Your task to perform on an android device: Show me productivity apps on the Play Store Image 0: 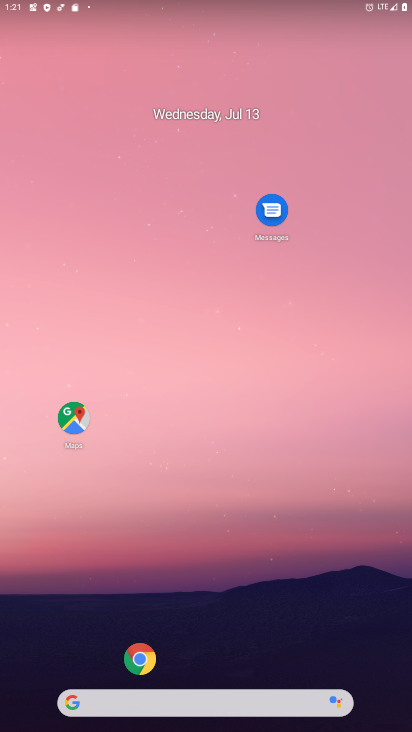
Step 0: drag from (65, 592) to (235, 0)
Your task to perform on an android device: Show me productivity apps on the Play Store Image 1: 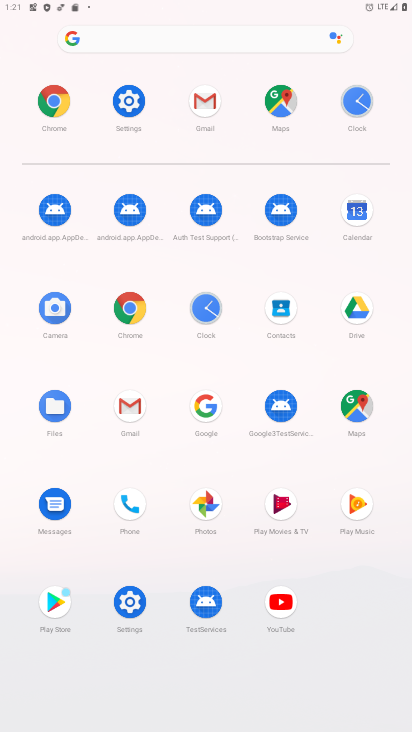
Step 1: click (59, 604)
Your task to perform on an android device: Show me productivity apps on the Play Store Image 2: 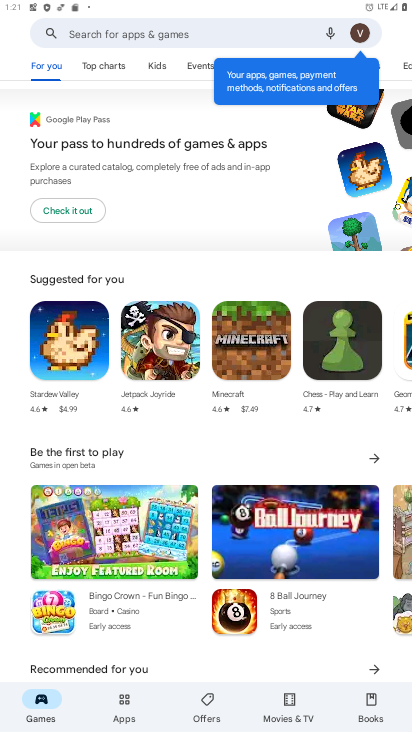
Step 2: click (77, 25)
Your task to perform on an android device: Show me productivity apps on the Play Store Image 3: 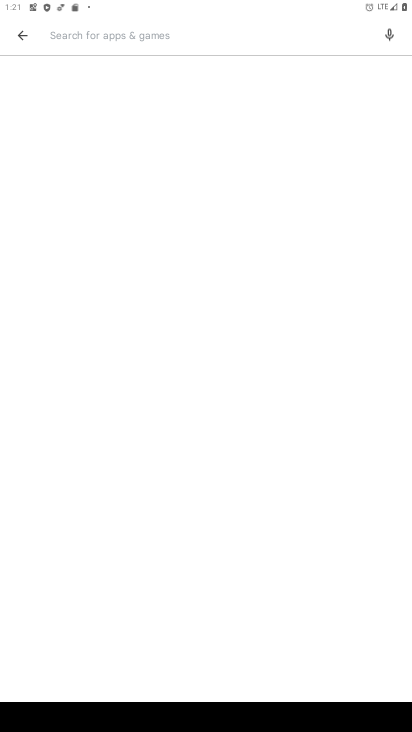
Step 3: type " productivity apps "
Your task to perform on an android device: Show me productivity apps on the Play Store Image 4: 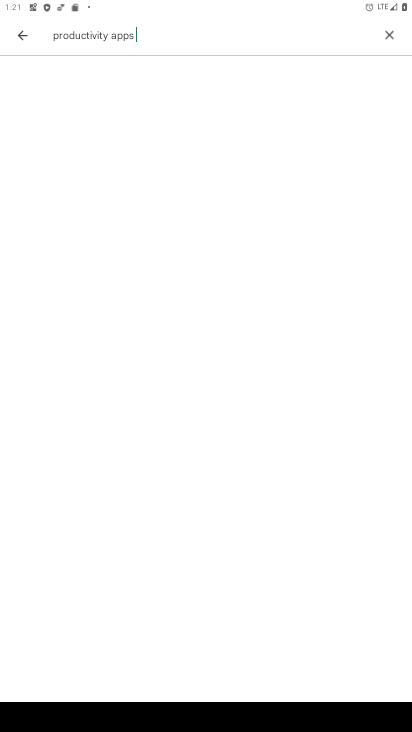
Step 4: type ""
Your task to perform on an android device: Show me productivity apps on the Play Store Image 5: 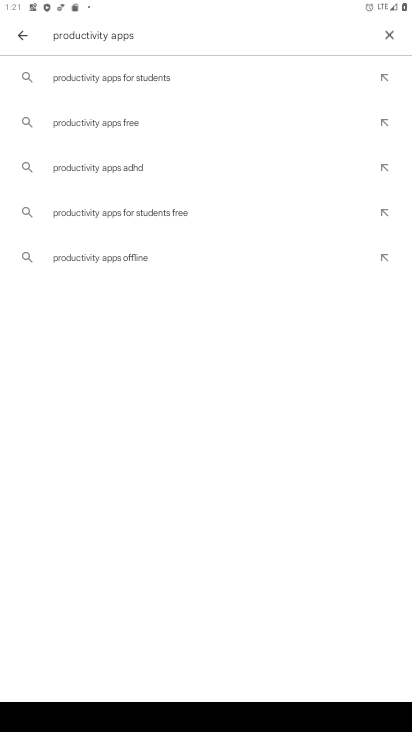
Step 5: type ""
Your task to perform on an android device: Show me productivity apps on the Play Store Image 6: 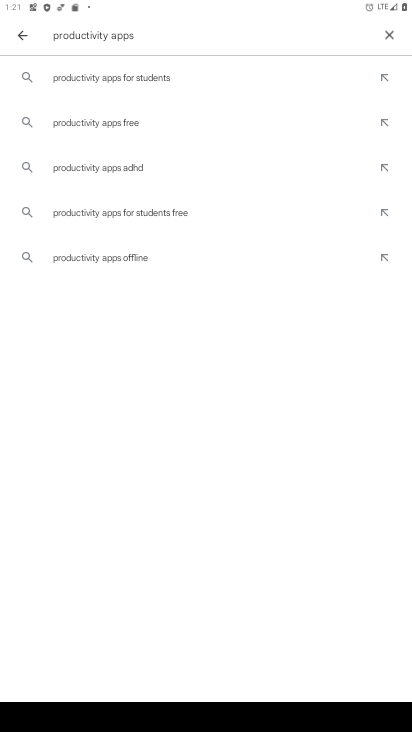
Step 6: type ""
Your task to perform on an android device: Show me productivity apps on the Play Store Image 7: 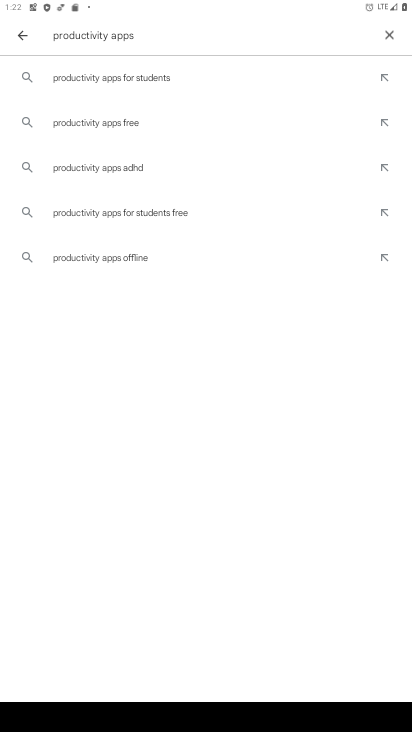
Step 7: task complete